Your task to perform on an android device: delete the emails in spam in the gmail app Image 0: 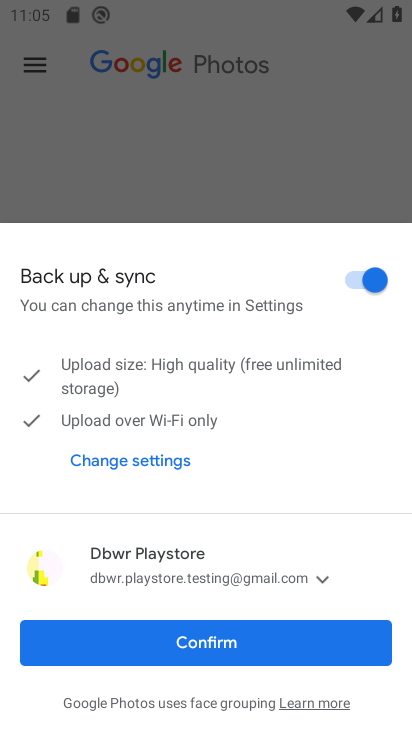
Step 0: press home button
Your task to perform on an android device: delete the emails in spam in the gmail app Image 1: 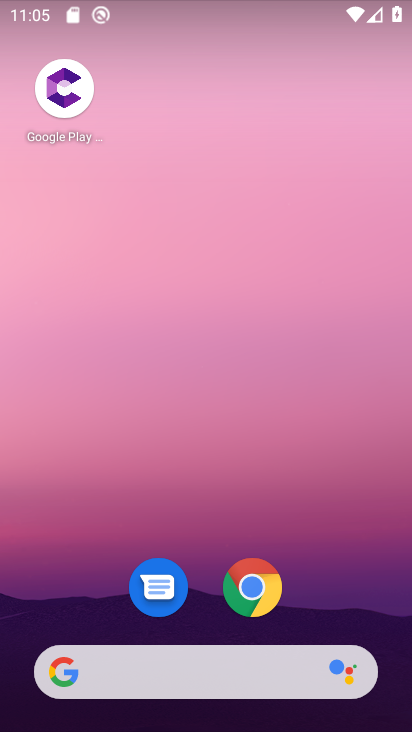
Step 1: drag from (199, 617) to (213, 157)
Your task to perform on an android device: delete the emails in spam in the gmail app Image 2: 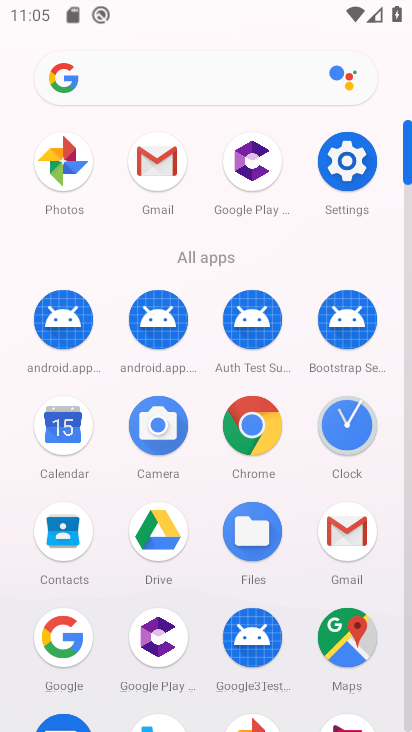
Step 2: click (177, 181)
Your task to perform on an android device: delete the emails in spam in the gmail app Image 3: 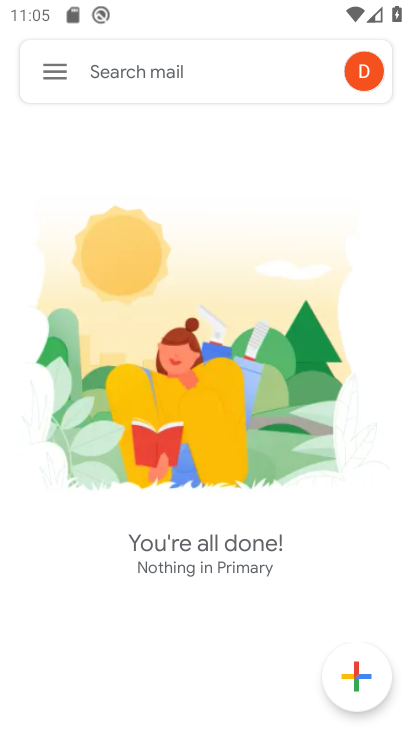
Step 3: click (12, 72)
Your task to perform on an android device: delete the emails in spam in the gmail app Image 4: 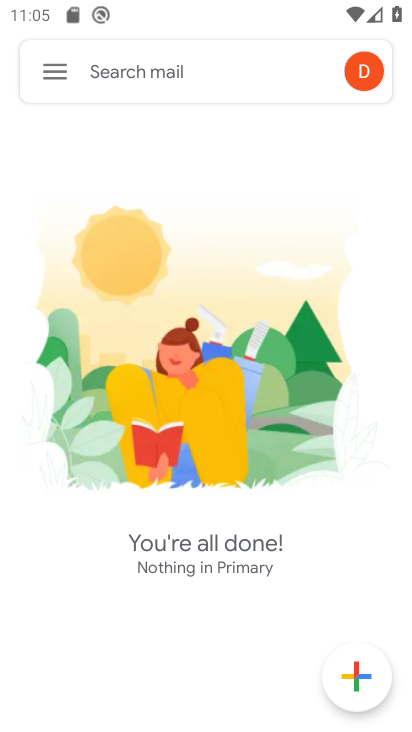
Step 4: click (37, 80)
Your task to perform on an android device: delete the emails in spam in the gmail app Image 5: 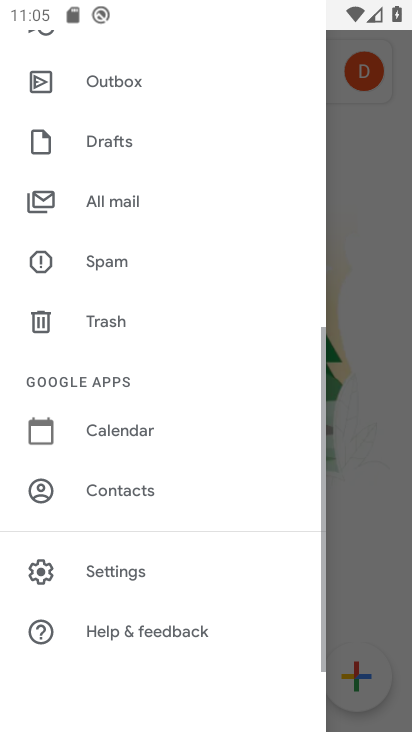
Step 5: click (47, 82)
Your task to perform on an android device: delete the emails in spam in the gmail app Image 6: 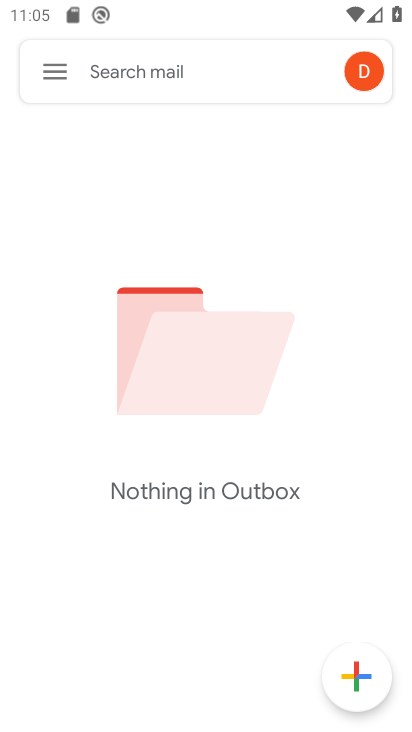
Step 6: click (56, 68)
Your task to perform on an android device: delete the emails in spam in the gmail app Image 7: 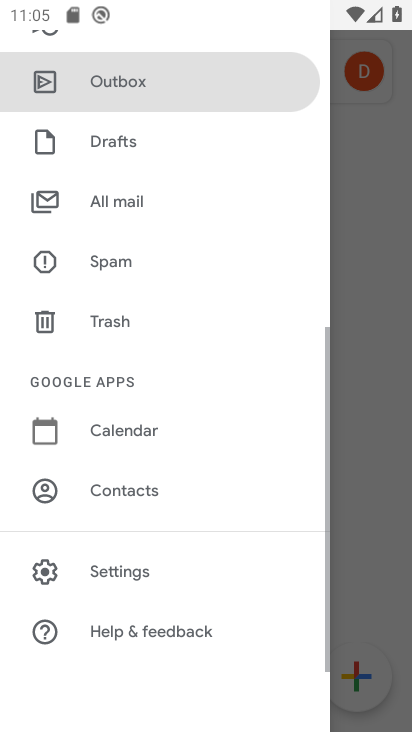
Step 7: click (142, 210)
Your task to perform on an android device: delete the emails in spam in the gmail app Image 8: 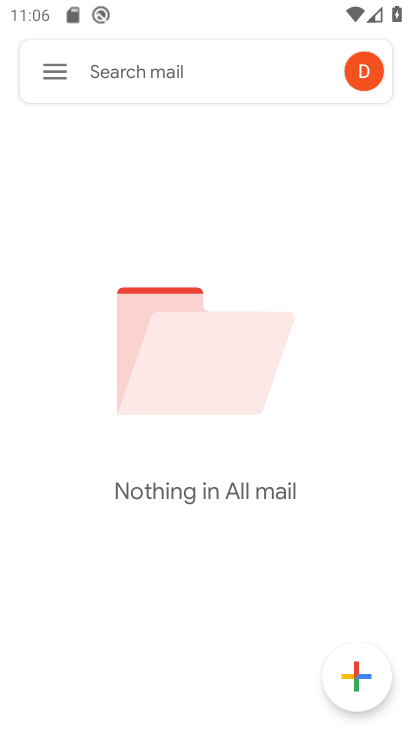
Step 8: task complete